Your task to perform on an android device: change the clock style Image 0: 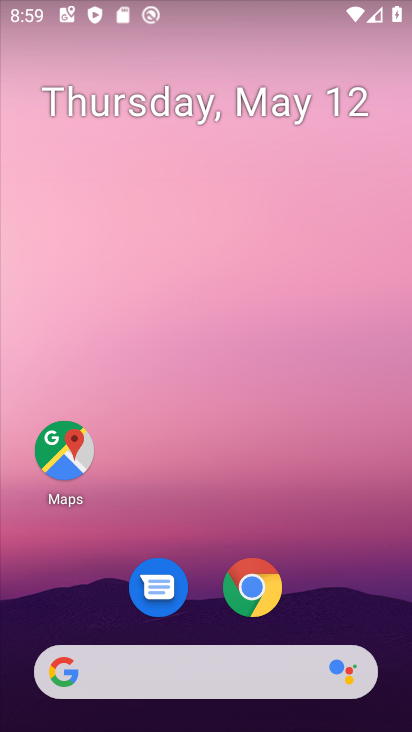
Step 0: drag from (330, 542) to (322, 189)
Your task to perform on an android device: change the clock style Image 1: 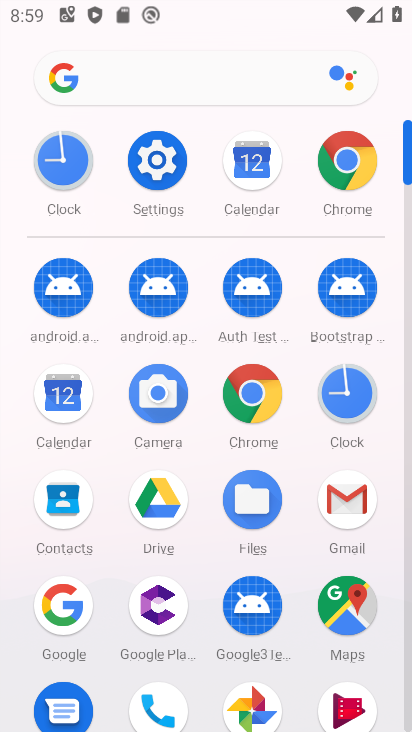
Step 1: click (349, 392)
Your task to perform on an android device: change the clock style Image 2: 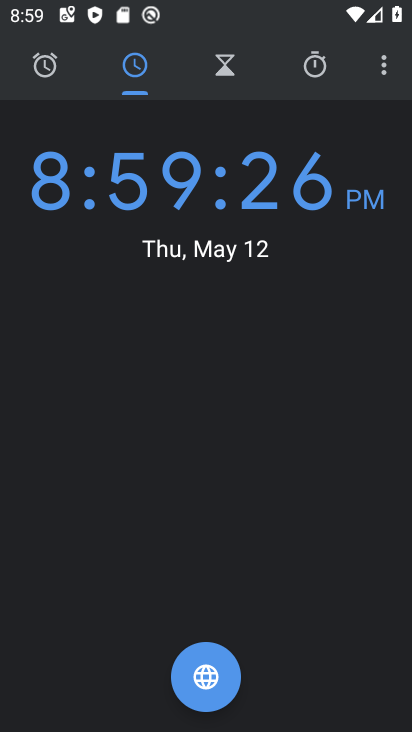
Step 2: click (379, 62)
Your task to perform on an android device: change the clock style Image 3: 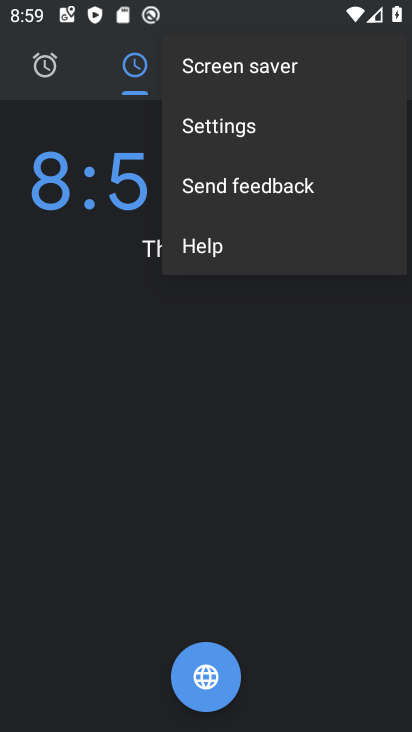
Step 3: click (242, 132)
Your task to perform on an android device: change the clock style Image 4: 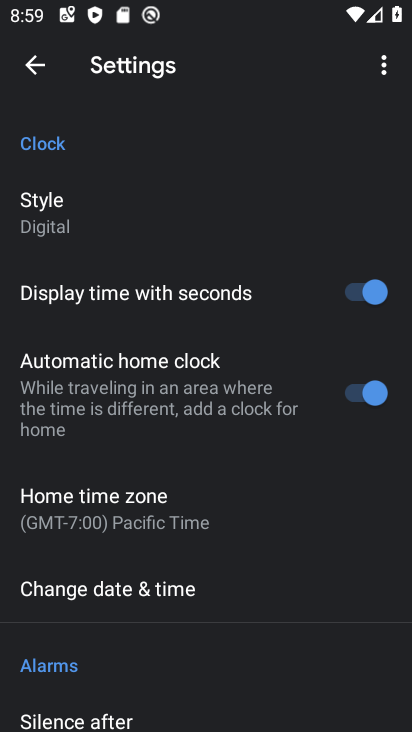
Step 4: click (91, 214)
Your task to perform on an android device: change the clock style Image 5: 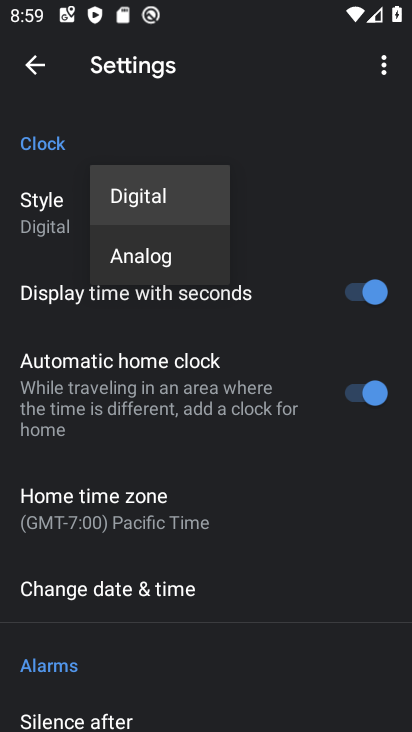
Step 5: click (118, 250)
Your task to perform on an android device: change the clock style Image 6: 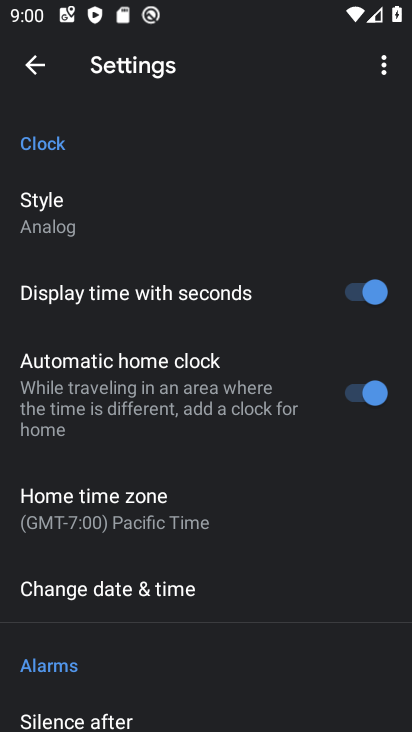
Step 6: task complete